Your task to perform on an android device: install app "ColorNote Notepad Notes" Image 0: 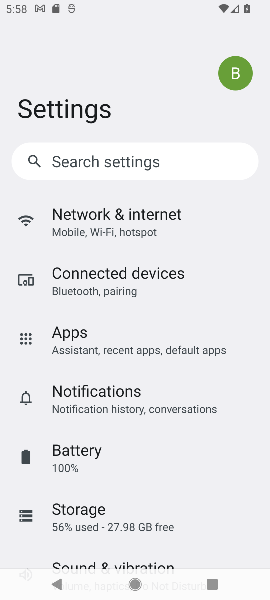
Step 0: press home button
Your task to perform on an android device: install app "ColorNote Notepad Notes" Image 1: 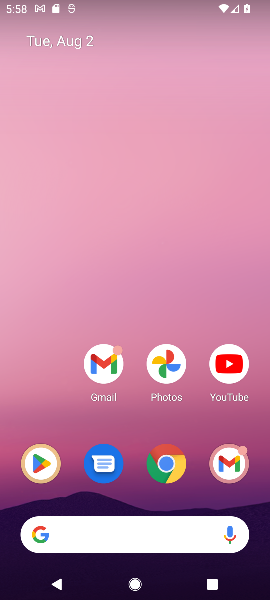
Step 1: click (41, 463)
Your task to perform on an android device: install app "ColorNote Notepad Notes" Image 2: 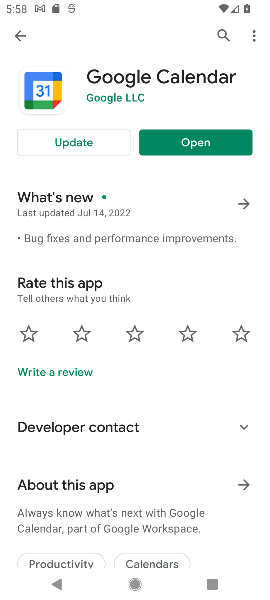
Step 2: click (223, 32)
Your task to perform on an android device: install app "ColorNote Notepad Notes" Image 3: 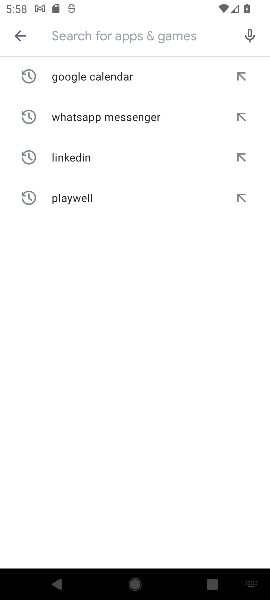
Step 3: type "ColorNote Notepad Notes"
Your task to perform on an android device: install app "ColorNote Notepad Notes" Image 4: 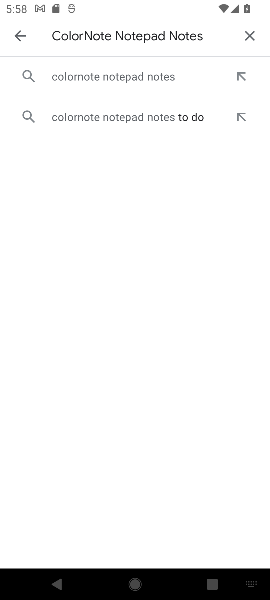
Step 4: click (161, 80)
Your task to perform on an android device: install app "ColorNote Notepad Notes" Image 5: 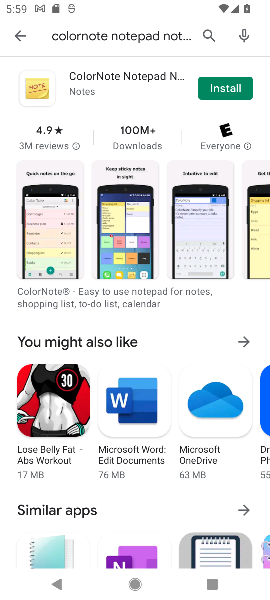
Step 5: click (228, 91)
Your task to perform on an android device: install app "ColorNote Notepad Notes" Image 6: 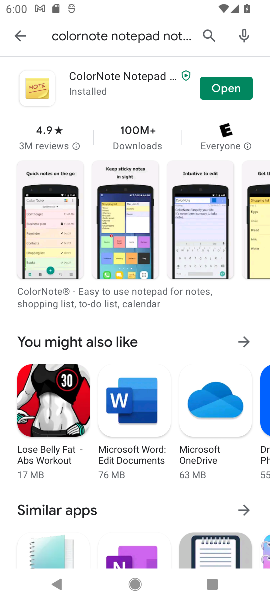
Step 6: task complete